Your task to perform on an android device: allow notifications from all sites in the chrome app Image 0: 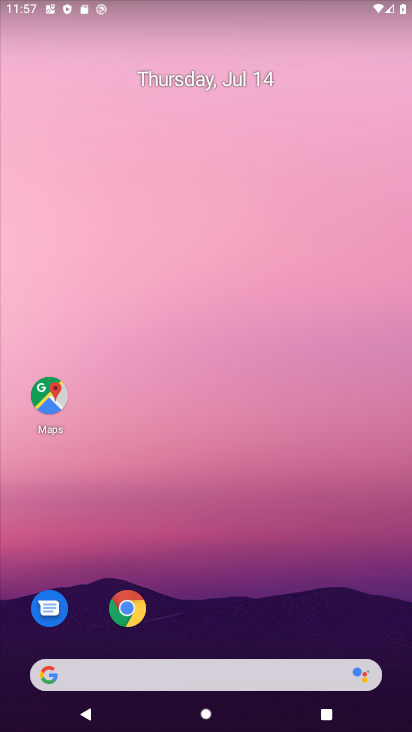
Step 0: drag from (192, 599) to (189, 257)
Your task to perform on an android device: allow notifications from all sites in the chrome app Image 1: 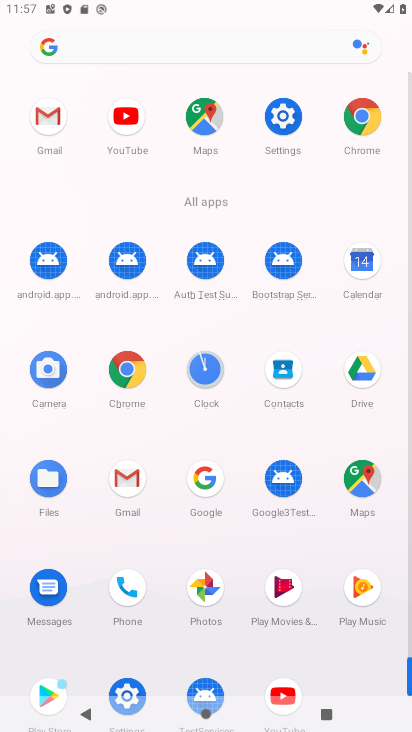
Step 1: click (358, 142)
Your task to perform on an android device: allow notifications from all sites in the chrome app Image 2: 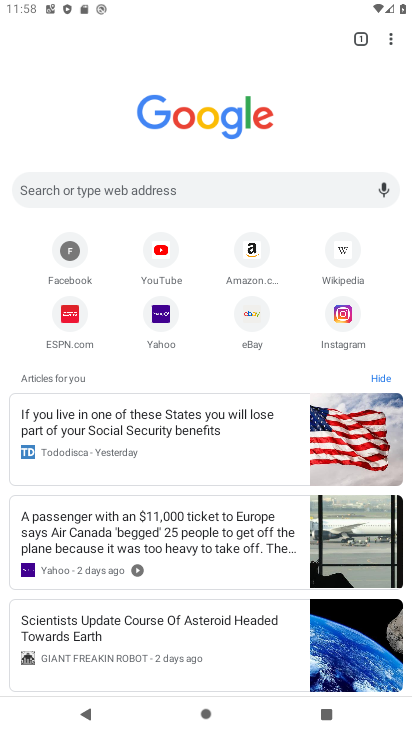
Step 2: click (390, 39)
Your task to perform on an android device: allow notifications from all sites in the chrome app Image 3: 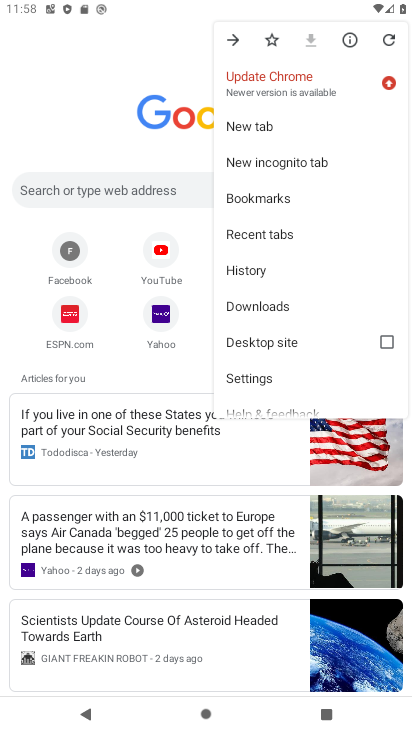
Step 3: click (258, 377)
Your task to perform on an android device: allow notifications from all sites in the chrome app Image 4: 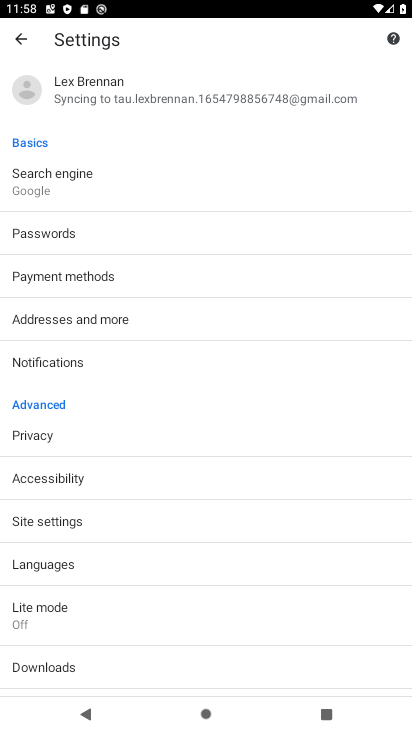
Step 4: click (55, 518)
Your task to perform on an android device: allow notifications from all sites in the chrome app Image 5: 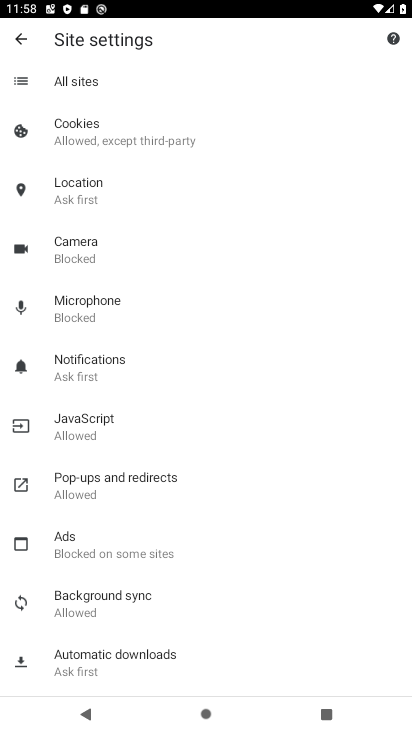
Step 5: click (99, 80)
Your task to perform on an android device: allow notifications from all sites in the chrome app Image 6: 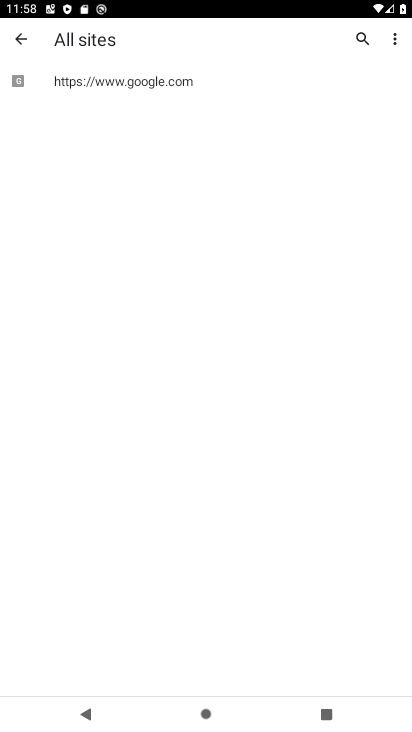
Step 6: click (125, 82)
Your task to perform on an android device: allow notifications from all sites in the chrome app Image 7: 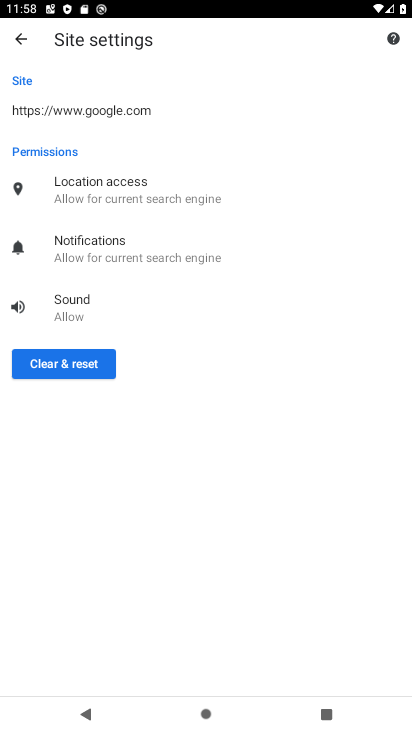
Step 7: click (74, 254)
Your task to perform on an android device: allow notifications from all sites in the chrome app Image 8: 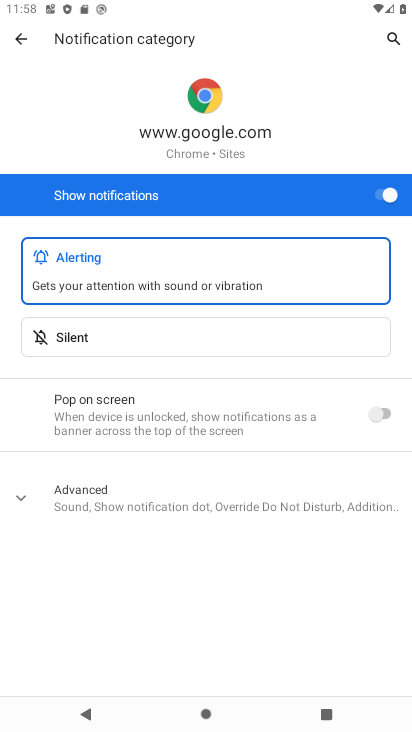
Step 8: task complete